Your task to perform on an android device: empty trash in google photos Image 0: 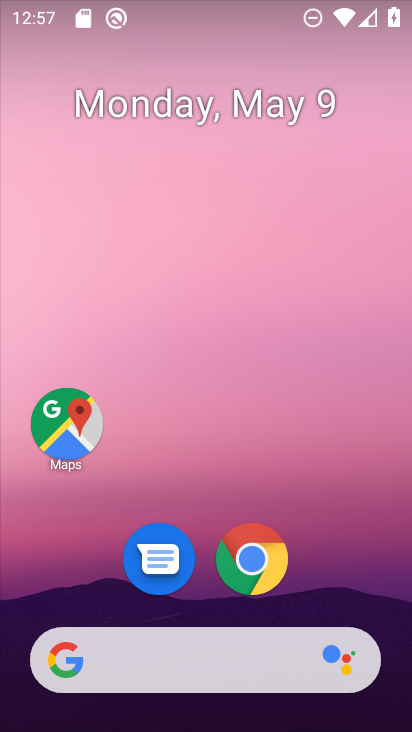
Step 0: drag from (340, 488) to (289, 164)
Your task to perform on an android device: empty trash in google photos Image 1: 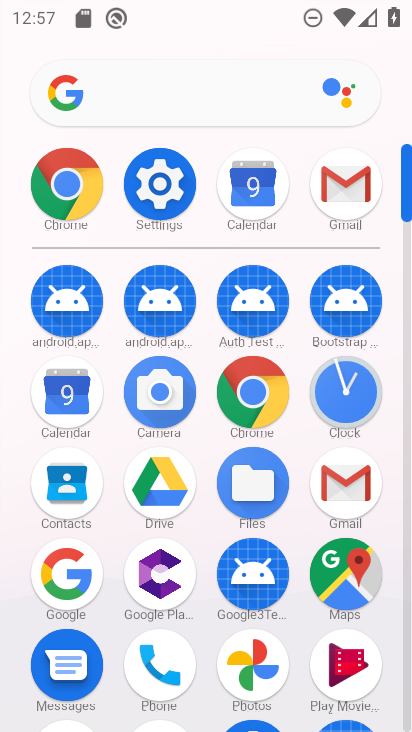
Step 1: click (376, 221)
Your task to perform on an android device: empty trash in google photos Image 2: 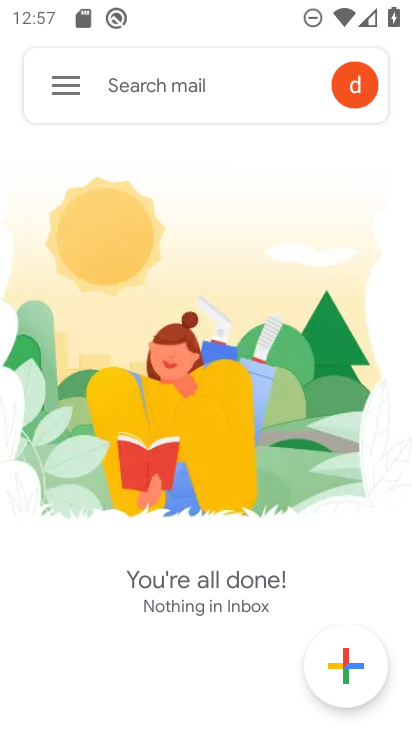
Step 2: click (69, 97)
Your task to perform on an android device: empty trash in google photos Image 3: 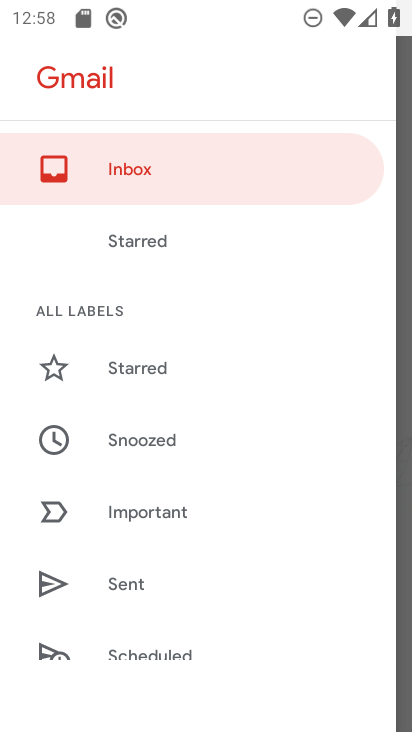
Step 3: drag from (277, 594) to (301, 359)
Your task to perform on an android device: empty trash in google photos Image 4: 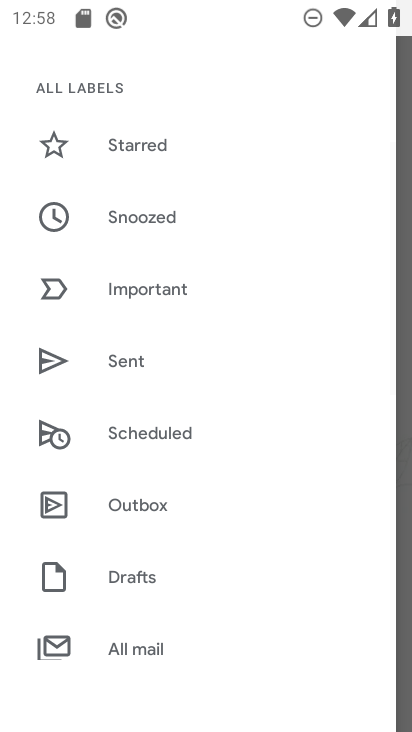
Step 4: drag from (278, 504) to (287, 326)
Your task to perform on an android device: empty trash in google photos Image 5: 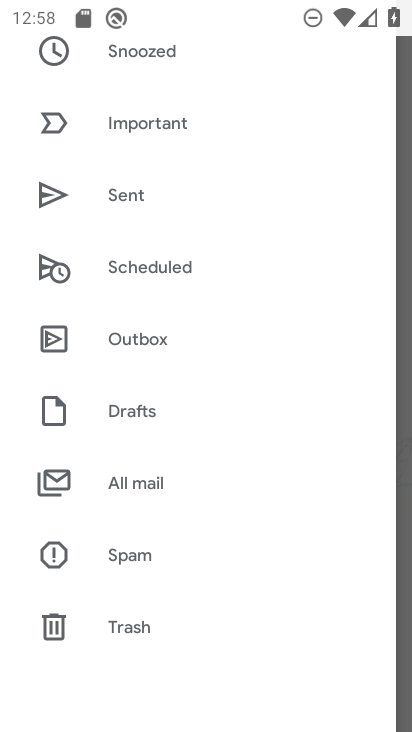
Step 5: drag from (291, 300) to (284, 132)
Your task to perform on an android device: empty trash in google photos Image 6: 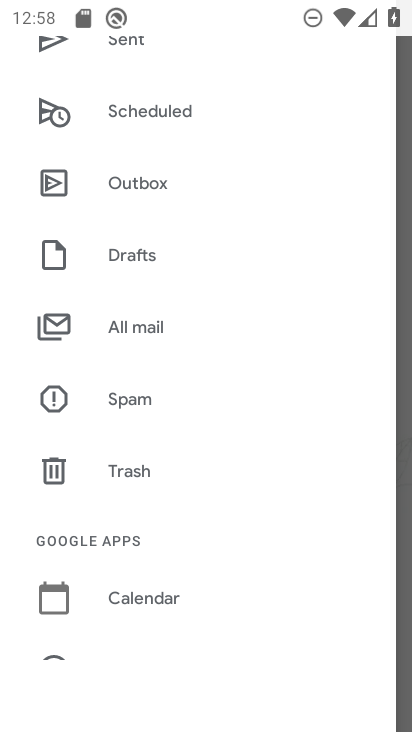
Step 6: click (145, 483)
Your task to perform on an android device: empty trash in google photos Image 7: 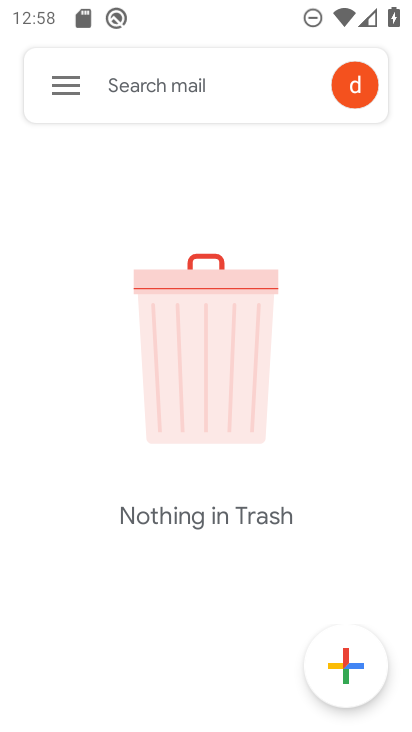
Step 7: task complete